Your task to perform on an android device: Search for a new foundation (skincare) product Image 0: 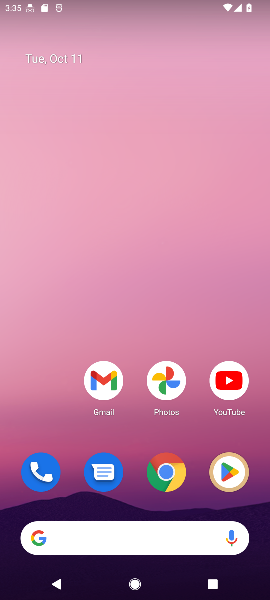
Step 0: click (161, 479)
Your task to perform on an android device: Search for a new foundation (skincare) product Image 1: 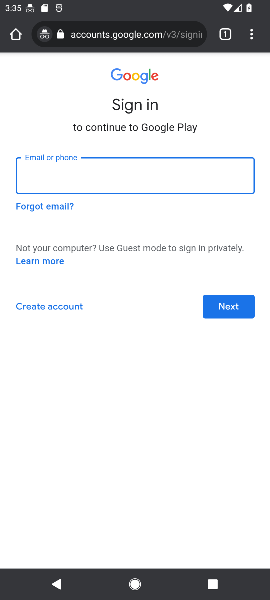
Step 1: click (165, 32)
Your task to perform on an android device: Search for a new foundation (skincare) product Image 2: 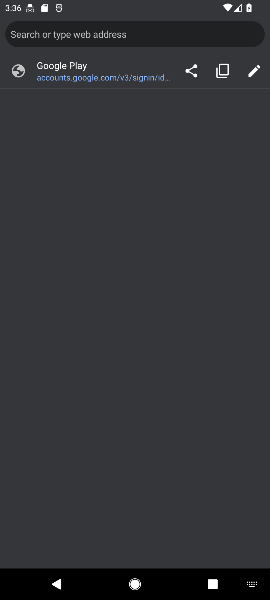
Step 2: type " new foundation (skincare) product"
Your task to perform on an android device: Search for a new foundation (skincare) product Image 3: 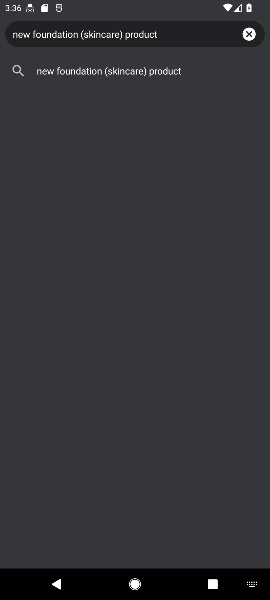
Step 3: click (29, 60)
Your task to perform on an android device: Search for a new foundation (skincare) product Image 4: 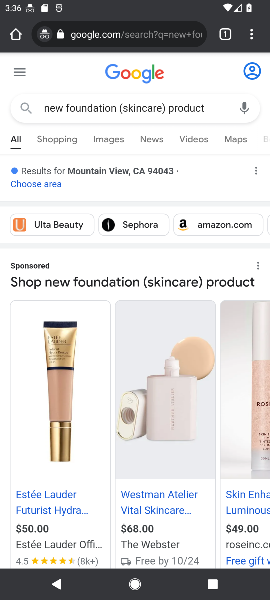
Step 4: click (64, 146)
Your task to perform on an android device: Search for a new foundation (skincare) product Image 5: 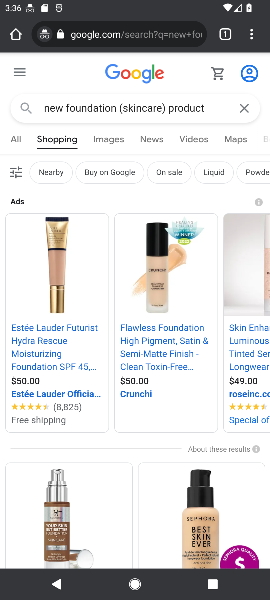
Step 5: click (38, 353)
Your task to perform on an android device: Search for a new foundation (skincare) product Image 6: 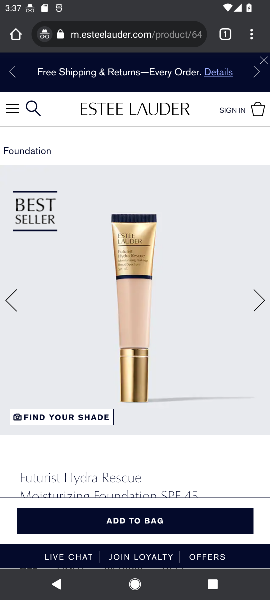
Step 6: task complete